Your task to perform on an android device: install app "DoorDash - Food Delivery" Image 0: 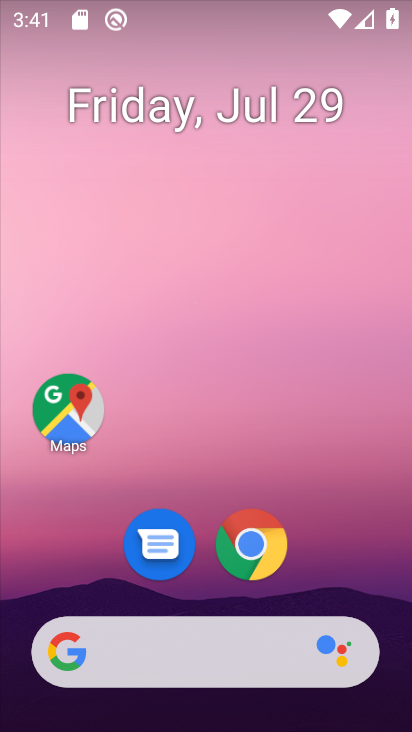
Step 0: drag from (226, 721) to (202, 248)
Your task to perform on an android device: install app "DoorDash - Food Delivery" Image 1: 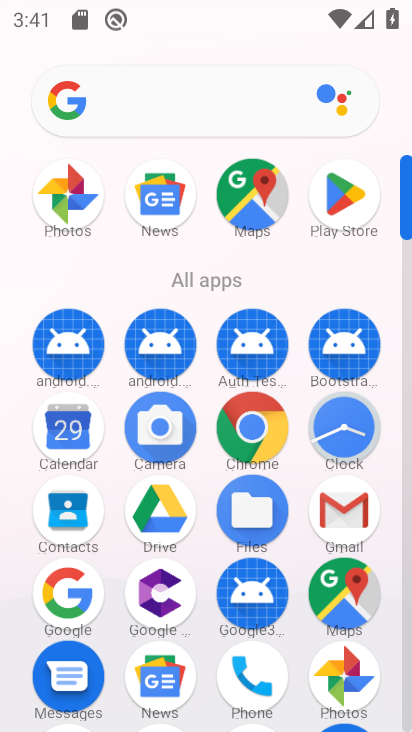
Step 1: click (345, 211)
Your task to perform on an android device: install app "DoorDash - Food Delivery" Image 2: 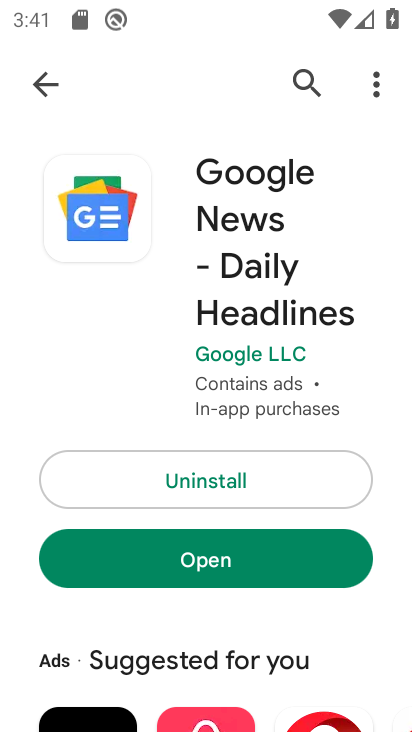
Step 2: click (299, 85)
Your task to perform on an android device: install app "DoorDash - Food Delivery" Image 3: 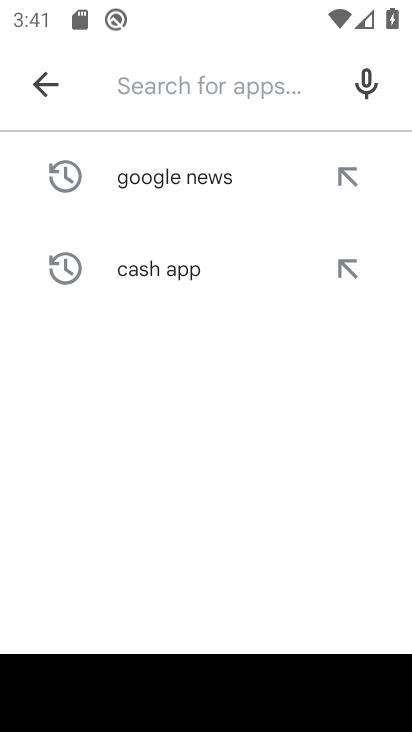
Step 3: type "DoorDash - Food Delivery"
Your task to perform on an android device: install app "DoorDash - Food Delivery" Image 4: 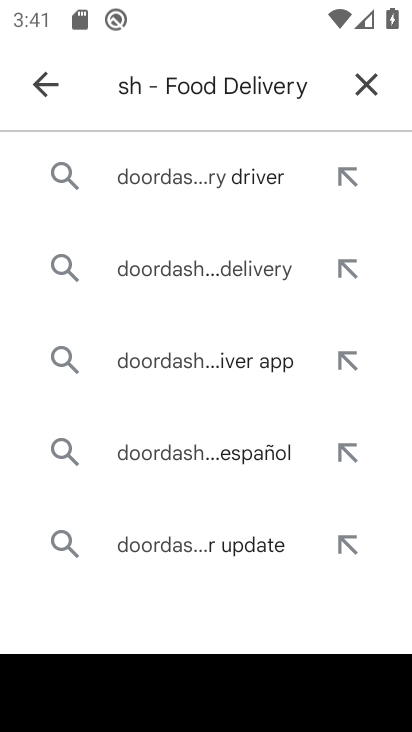
Step 4: click (260, 176)
Your task to perform on an android device: install app "DoorDash - Food Delivery" Image 5: 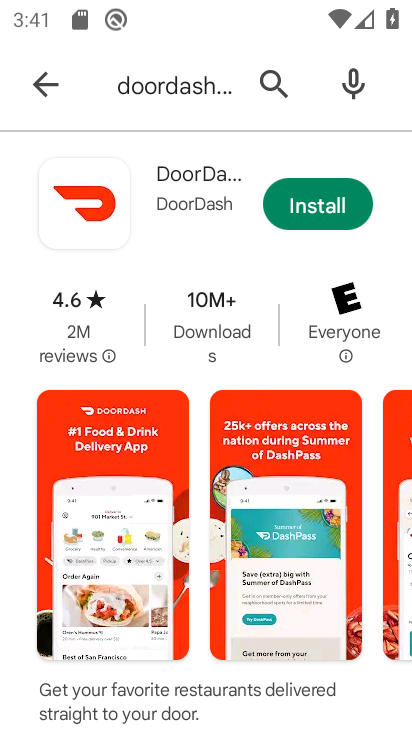
Step 5: click (306, 209)
Your task to perform on an android device: install app "DoorDash - Food Delivery" Image 6: 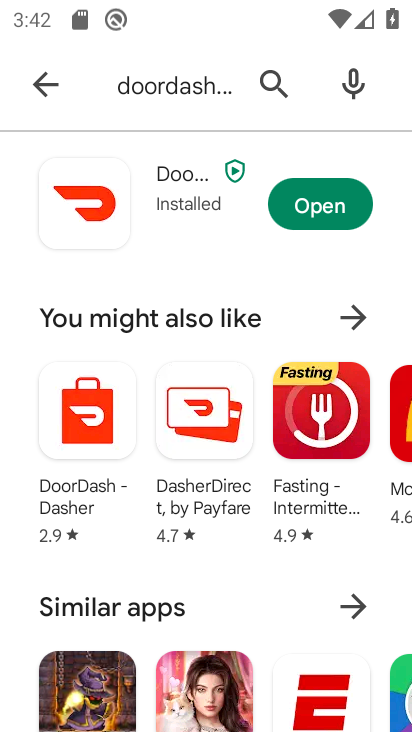
Step 6: task complete